Your task to perform on an android device: turn smart compose on in the gmail app Image 0: 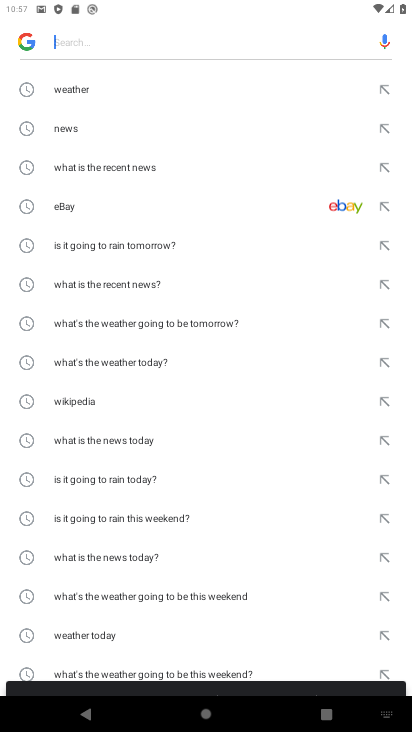
Step 0: press home button
Your task to perform on an android device: turn smart compose on in the gmail app Image 1: 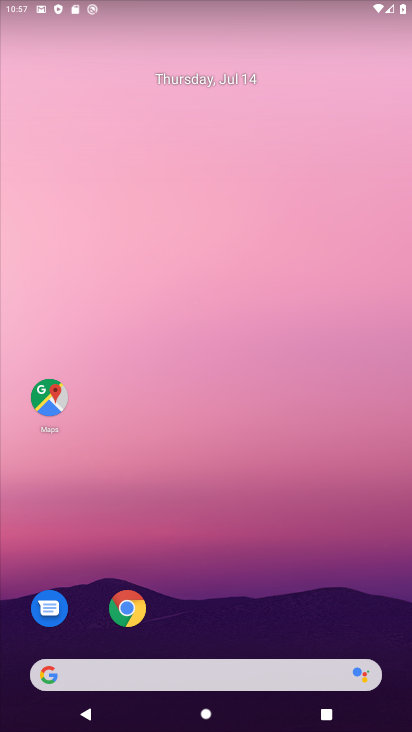
Step 1: drag from (294, 496) to (242, 0)
Your task to perform on an android device: turn smart compose on in the gmail app Image 2: 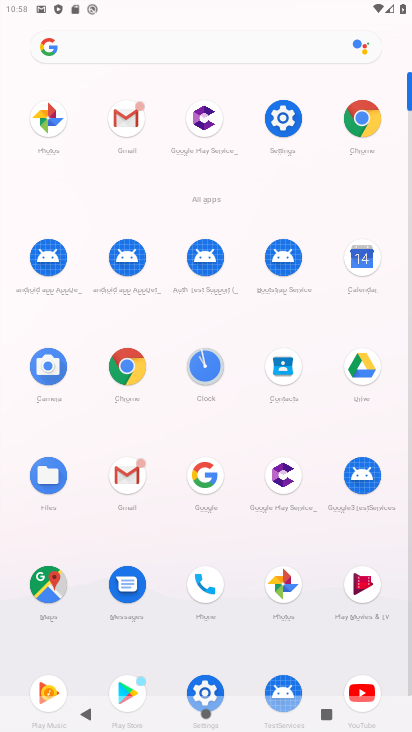
Step 2: click (119, 117)
Your task to perform on an android device: turn smart compose on in the gmail app Image 3: 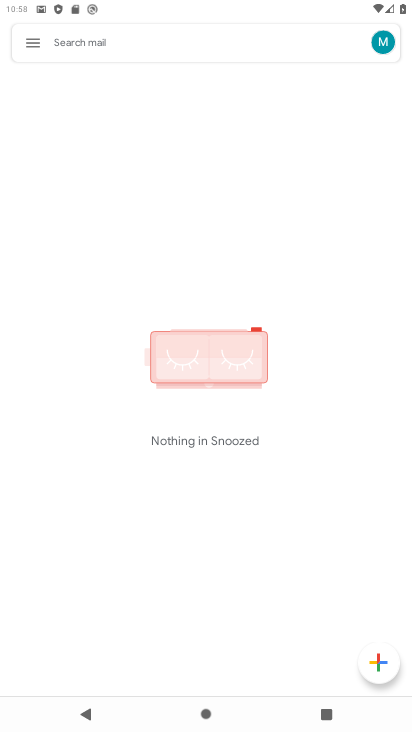
Step 3: click (34, 41)
Your task to perform on an android device: turn smart compose on in the gmail app Image 4: 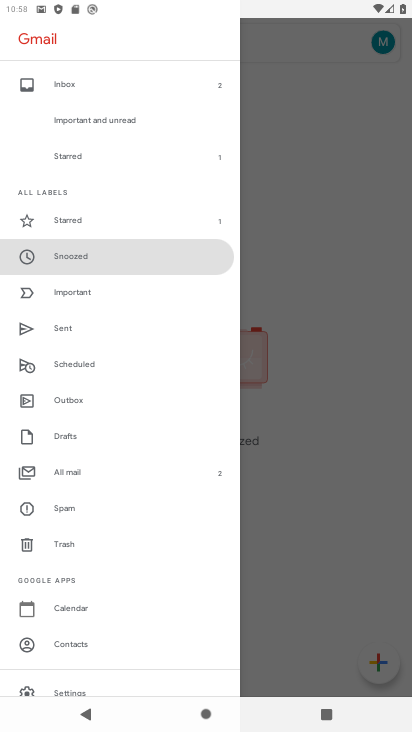
Step 4: drag from (125, 633) to (181, 153)
Your task to perform on an android device: turn smart compose on in the gmail app Image 5: 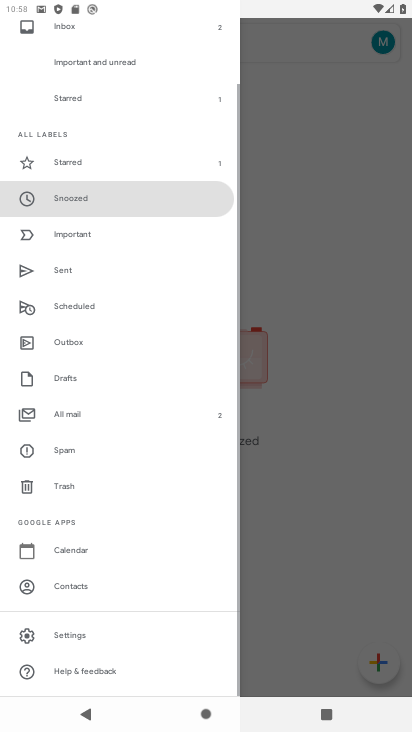
Step 5: click (74, 644)
Your task to perform on an android device: turn smart compose on in the gmail app Image 6: 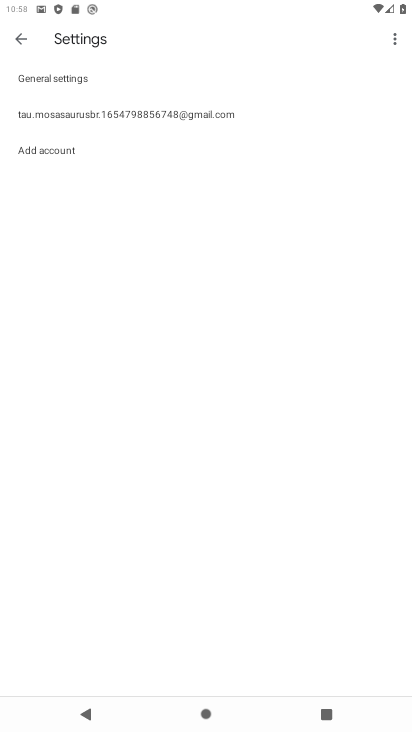
Step 6: click (30, 111)
Your task to perform on an android device: turn smart compose on in the gmail app Image 7: 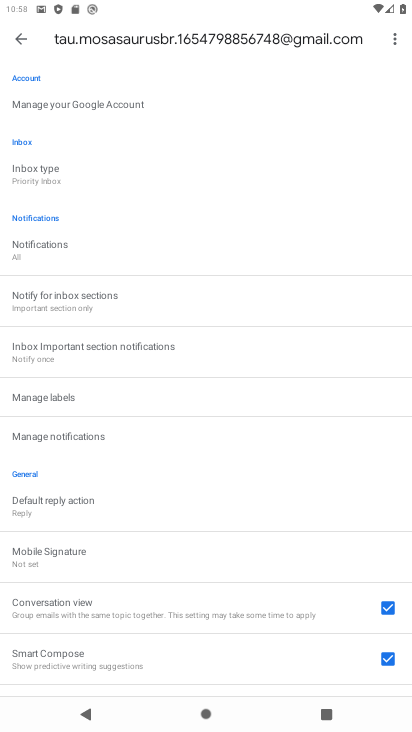
Step 7: task complete